Your task to perform on an android device: Clear the cart on bestbuy. Add usb-c to usb-a to the cart on bestbuy Image 0: 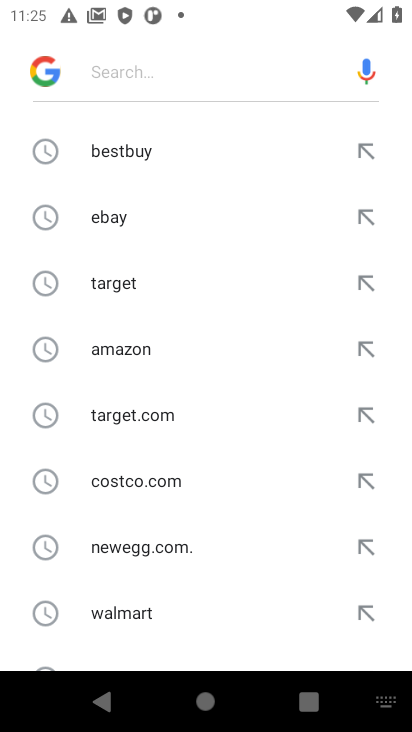
Step 0: type "bestbuy.com"
Your task to perform on an android device: Clear the cart on bestbuy. Add usb-c to usb-a to the cart on bestbuy Image 1: 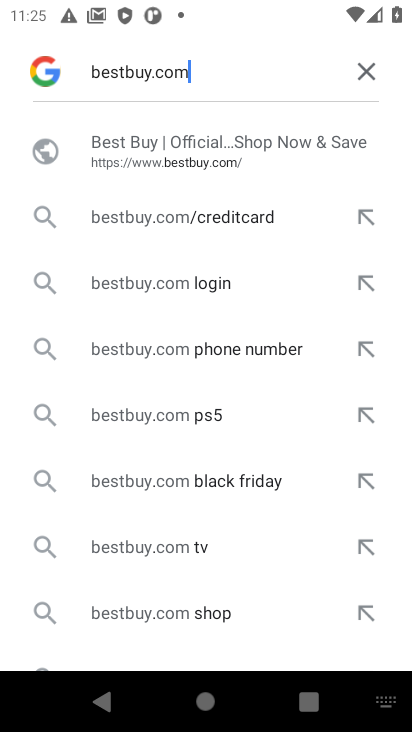
Step 1: click (149, 161)
Your task to perform on an android device: Clear the cart on bestbuy. Add usb-c to usb-a to the cart on bestbuy Image 2: 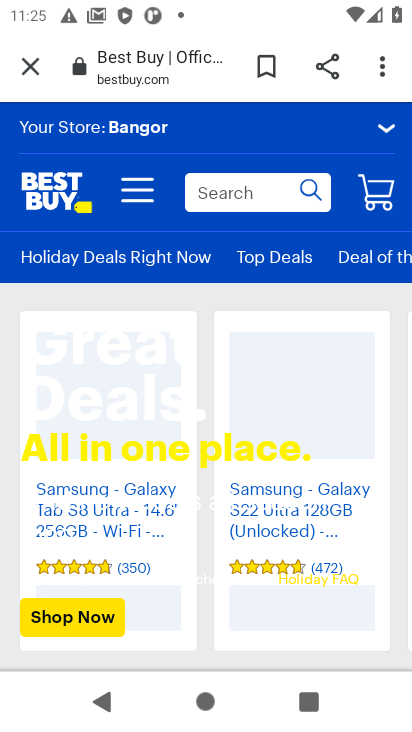
Step 2: click (380, 196)
Your task to perform on an android device: Clear the cart on bestbuy. Add usb-c to usb-a to the cart on bestbuy Image 3: 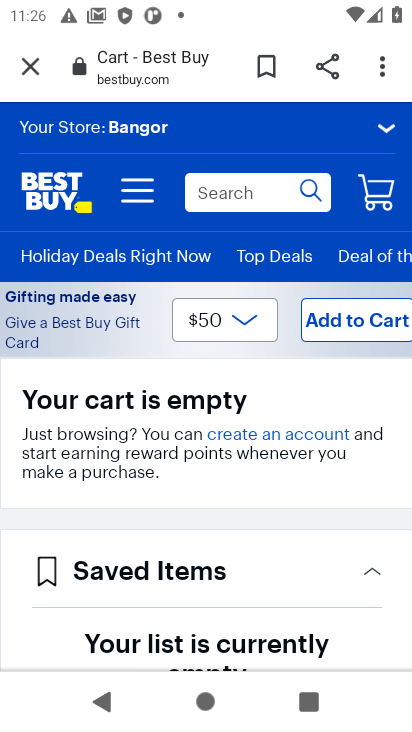
Step 3: click (235, 200)
Your task to perform on an android device: Clear the cart on bestbuy. Add usb-c to usb-a to the cart on bestbuy Image 4: 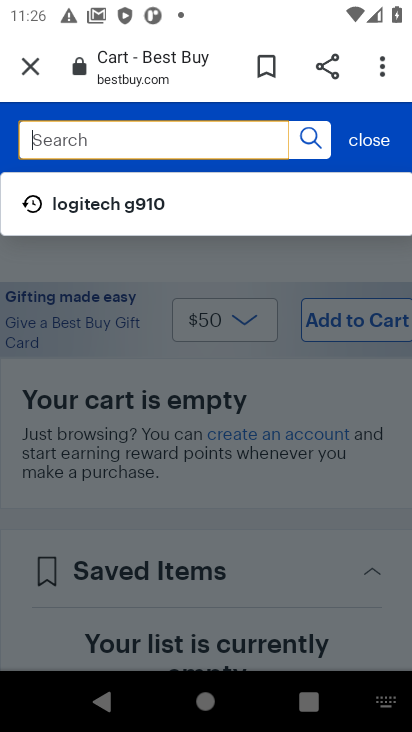
Step 4: type "usb-c to usb-a"
Your task to perform on an android device: Clear the cart on bestbuy. Add usb-c to usb-a to the cart on bestbuy Image 5: 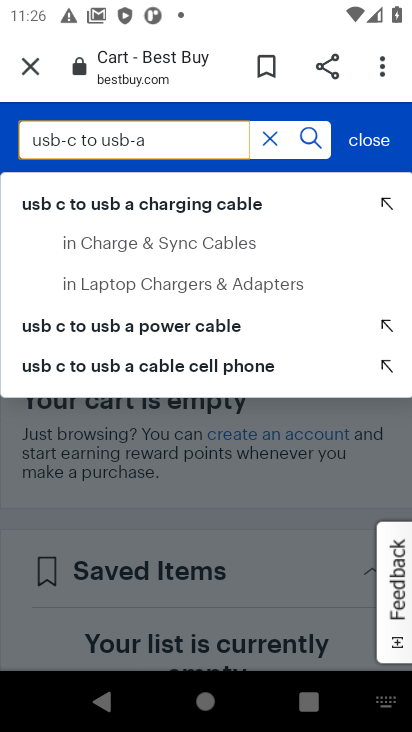
Step 5: click (171, 211)
Your task to perform on an android device: Clear the cart on bestbuy. Add usb-c to usb-a to the cart on bestbuy Image 6: 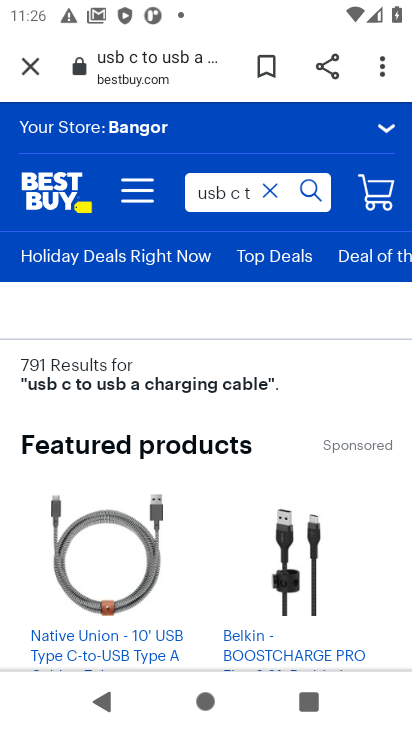
Step 6: drag from (194, 473) to (198, 167)
Your task to perform on an android device: Clear the cart on bestbuy. Add usb-c to usb-a to the cart on bestbuy Image 7: 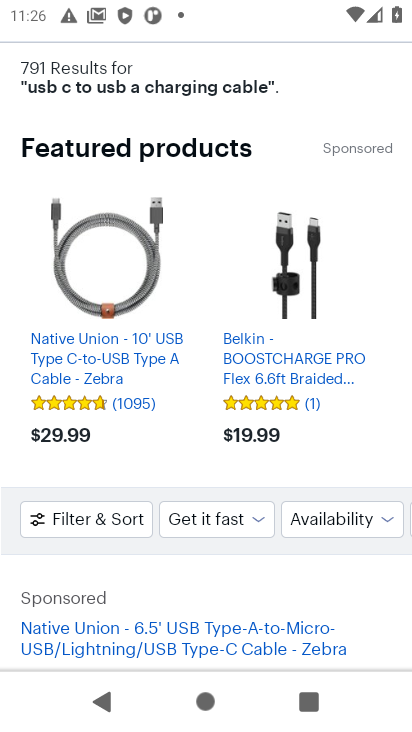
Step 7: drag from (196, 564) to (206, 240)
Your task to perform on an android device: Clear the cart on bestbuy. Add usb-c to usb-a to the cart on bestbuy Image 8: 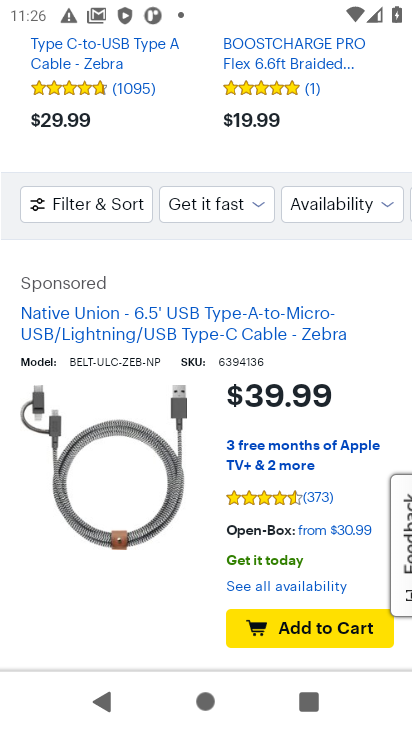
Step 8: drag from (175, 527) to (188, 192)
Your task to perform on an android device: Clear the cart on bestbuy. Add usb-c to usb-a to the cart on bestbuy Image 9: 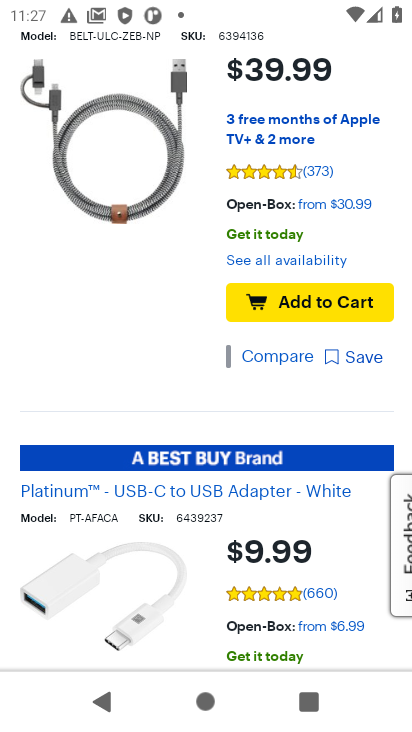
Step 9: drag from (205, 591) to (214, 266)
Your task to perform on an android device: Clear the cart on bestbuy. Add usb-c to usb-a to the cart on bestbuy Image 10: 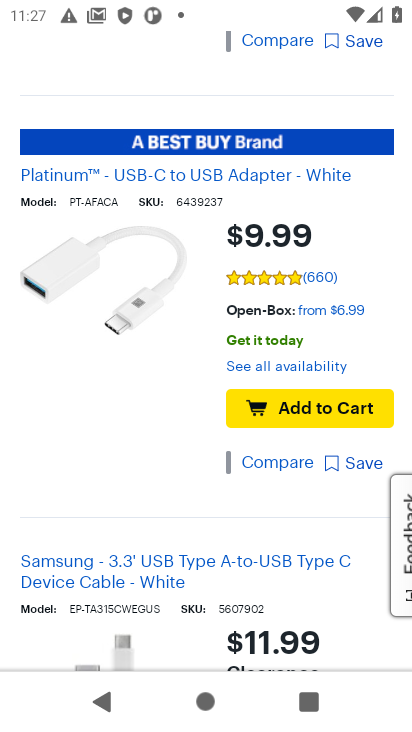
Step 10: drag from (198, 505) to (201, 303)
Your task to perform on an android device: Clear the cart on bestbuy. Add usb-c to usb-a to the cart on bestbuy Image 11: 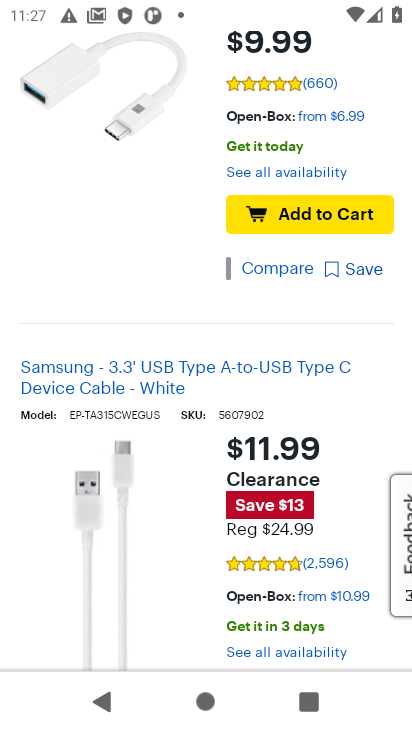
Step 11: drag from (160, 498) to (171, 224)
Your task to perform on an android device: Clear the cart on bestbuy. Add usb-c to usb-a to the cart on bestbuy Image 12: 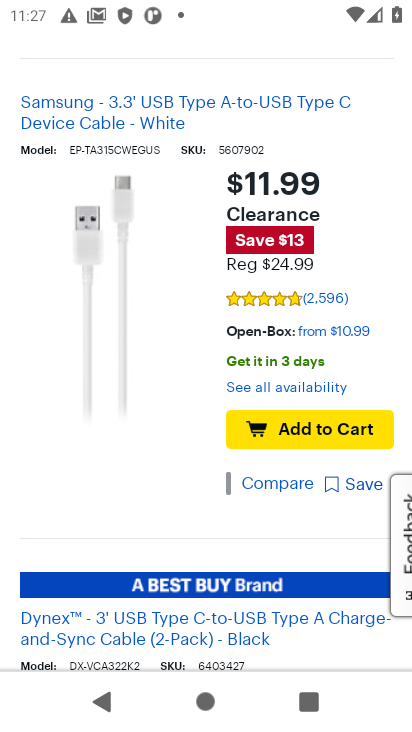
Step 12: drag from (168, 499) to (169, 242)
Your task to perform on an android device: Clear the cart on bestbuy. Add usb-c to usb-a to the cart on bestbuy Image 13: 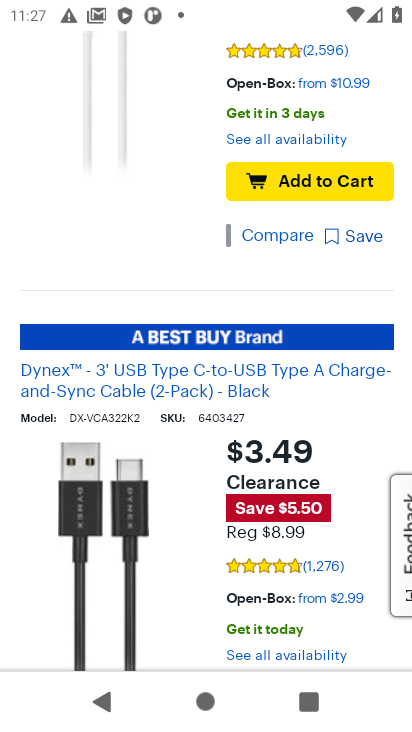
Step 13: drag from (213, 498) to (223, 288)
Your task to perform on an android device: Clear the cart on bestbuy. Add usb-c to usb-a to the cart on bestbuy Image 14: 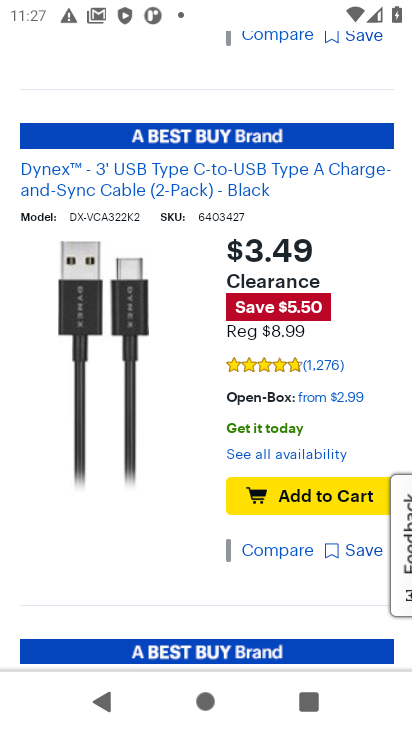
Step 14: click (316, 501)
Your task to perform on an android device: Clear the cart on bestbuy. Add usb-c to usb-a to the cart on bestbuy Image 15: 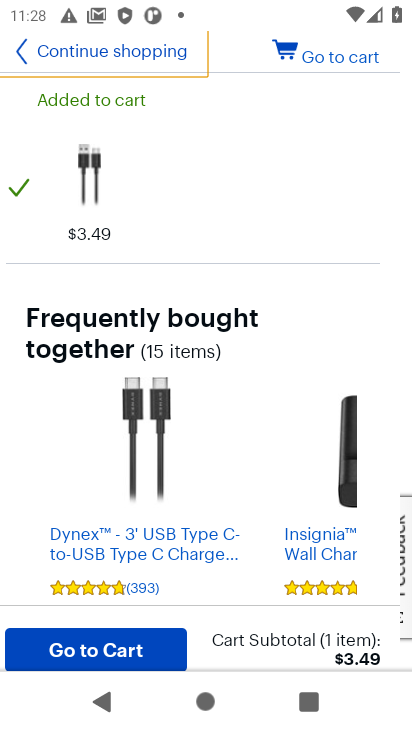
Step 15: task complete